Your task to perform on an android device: turn off smart reply in the gmail app Image 0: 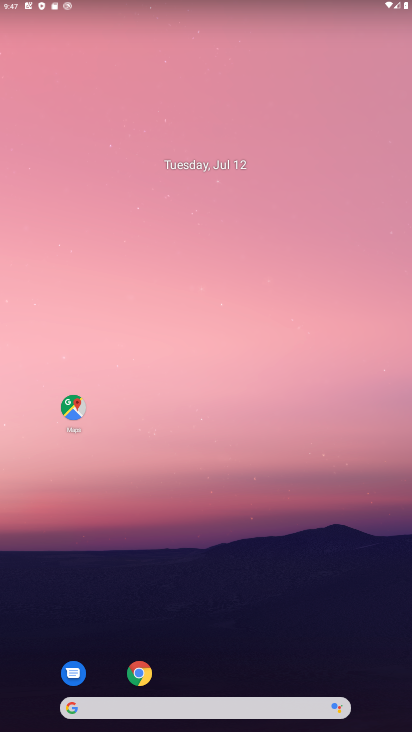
Step 0: drag from (179, 572) to (191, 53)
Your task to perform on an android device: turn off smart reply in the gmail app Image 1: 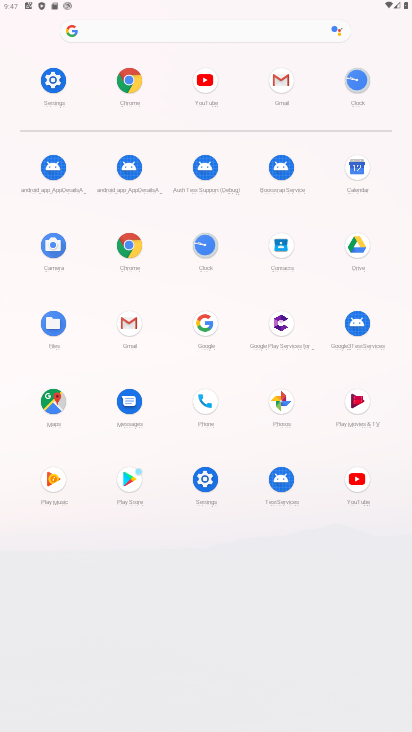
Step 1: click (287, 90)
Your task to perform on an android device: turn off smart reply in the gmail app Image 2: 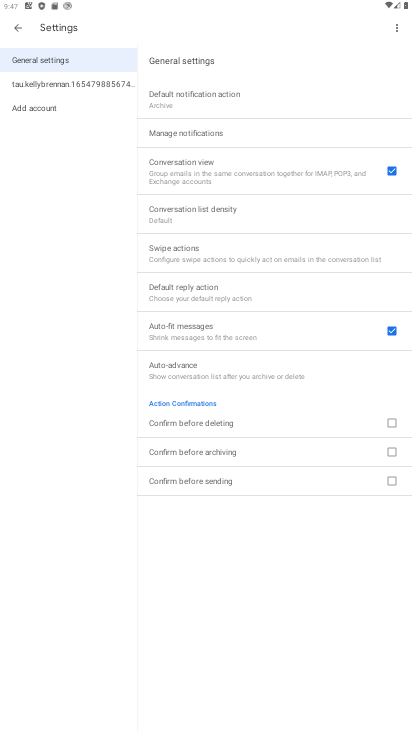
Step 2: click (87, 89)
Your task to perform on an android device: turn off smart reply in the gmail app Image 3: 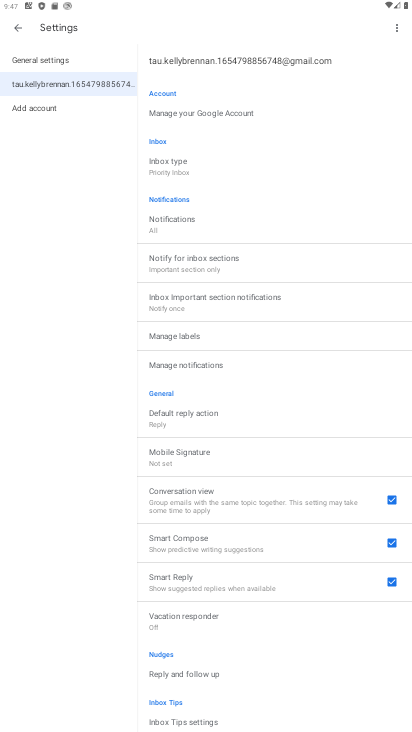
Step 3: click (392, 580)
Your task to perform on an android device: turn off smart reply in the gmail app Image 4: 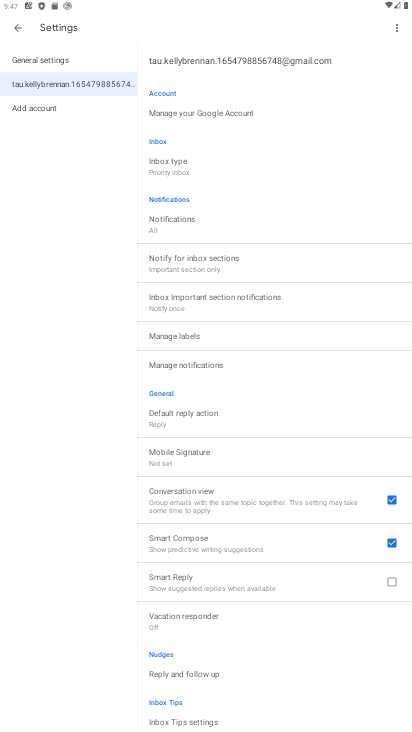
Step 4: task complete